Your task to perform on an android device: uninstall "Mercado Libre" Image 0: 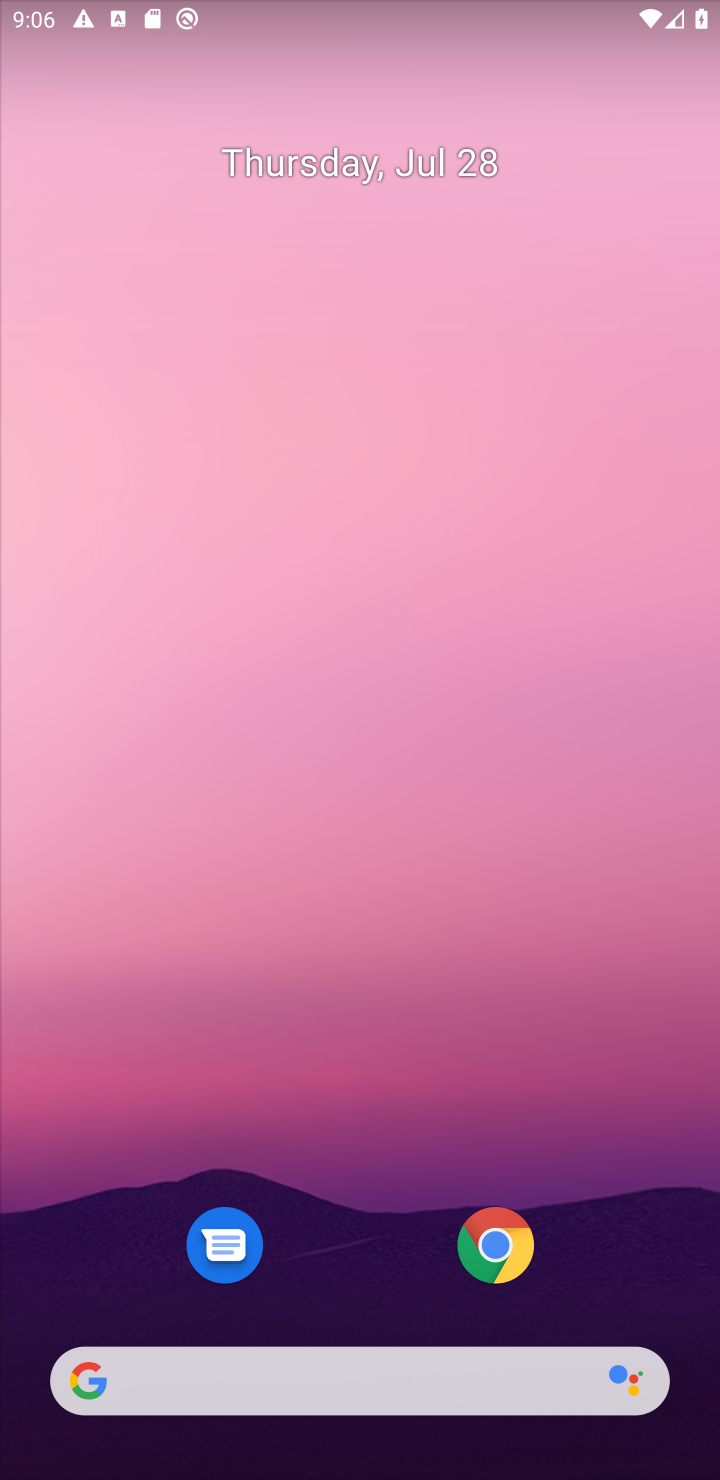
Step 0: drag from (330, 1291) to (339, 278)
Your task to perform on an android device: uninstall "Mercado Libre" Image 1: 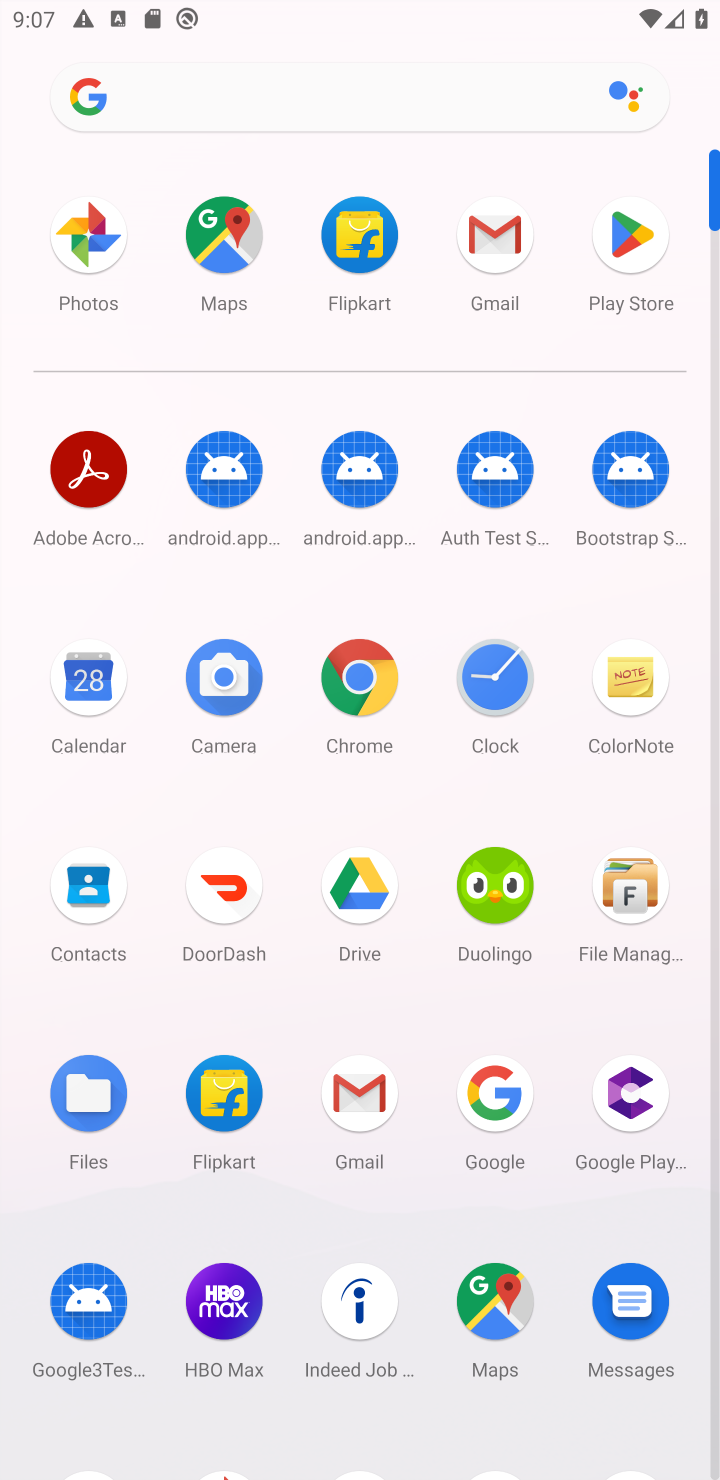
Step 1: click (641, 245)
Your task to perform on an android device: uninstall "Mercado Libre" Image 2: 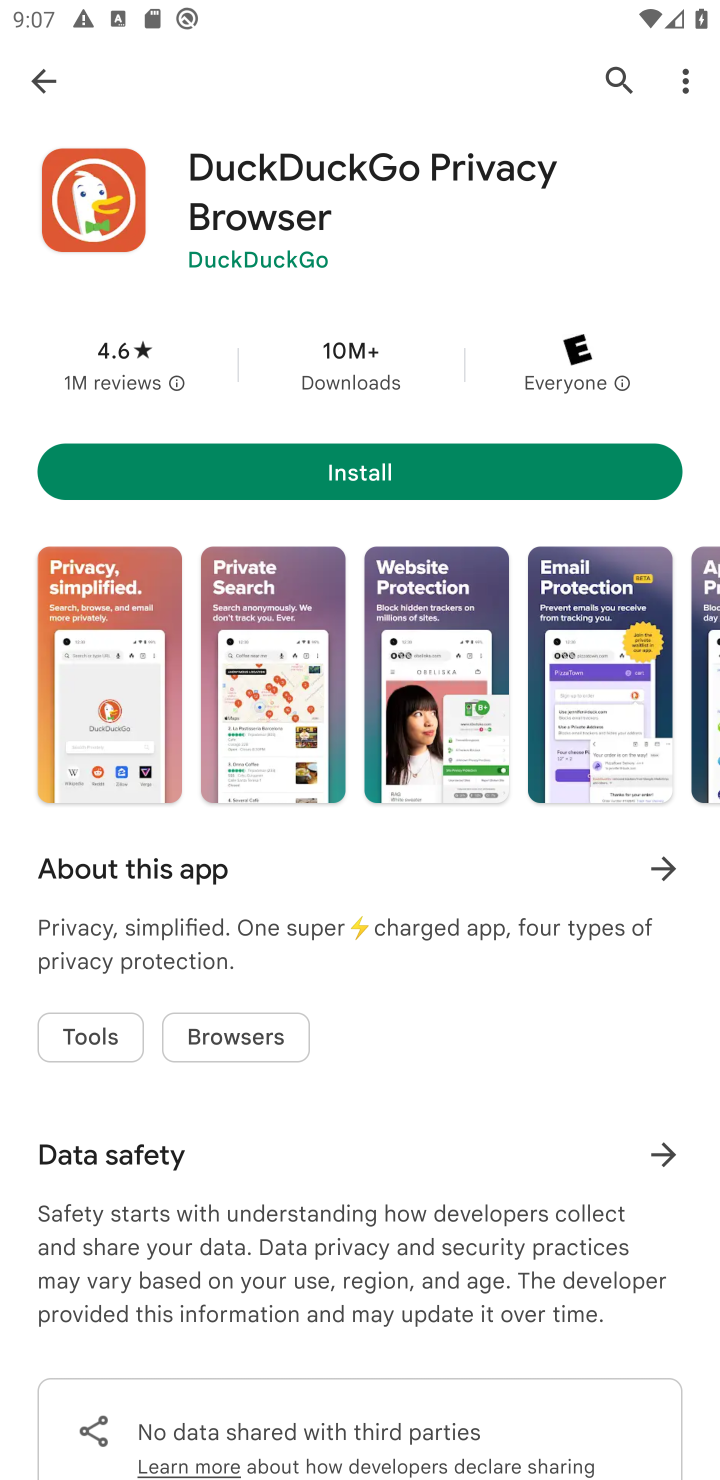
Step 2: click (617, 88)
Your task to perform on an android device: uninstall "Mercado Libre" Image 3: 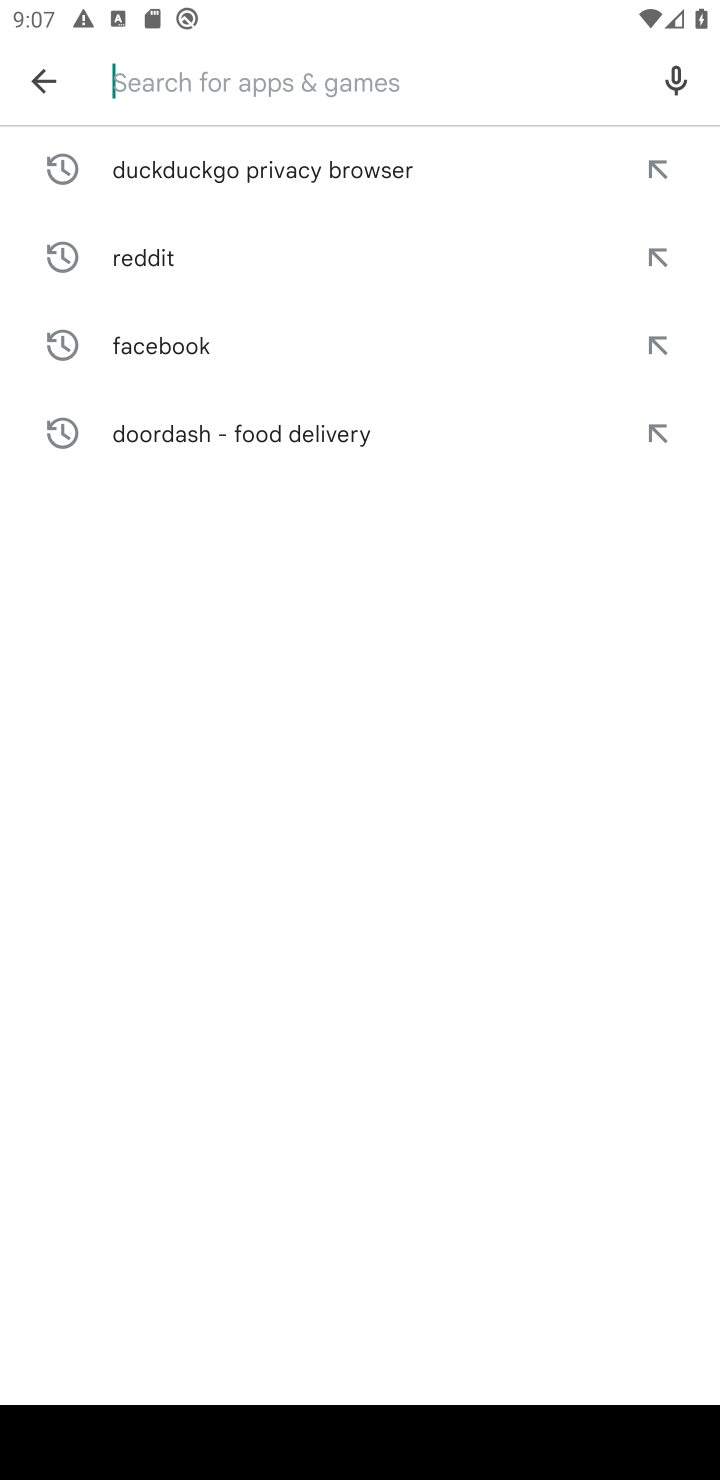
Step 3: type "mercado libre"
Your task to perform on an android device: uninstall "Mercado Libre" Image 4: 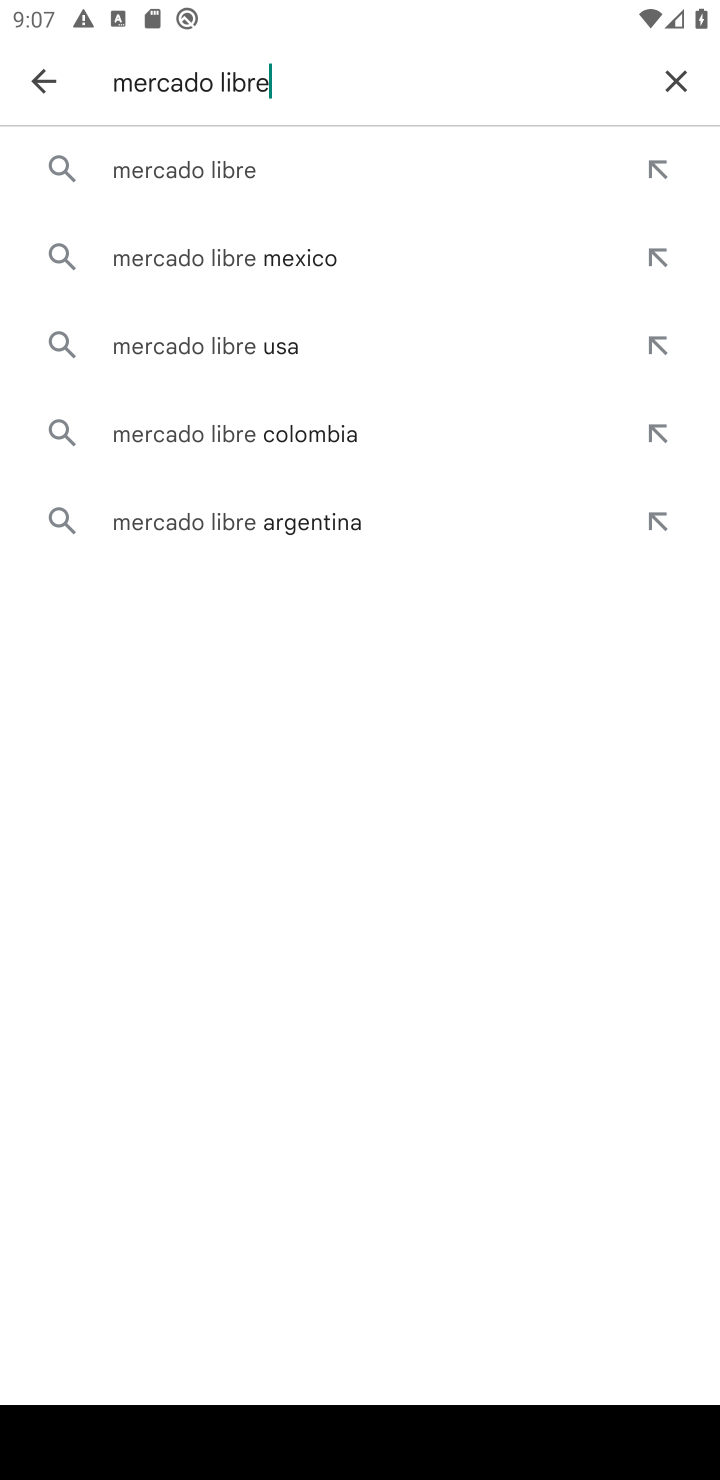
Step 4: click (345, 130)
Your task to perform on an android device: uninstall "Mercado Libre" Image 5: 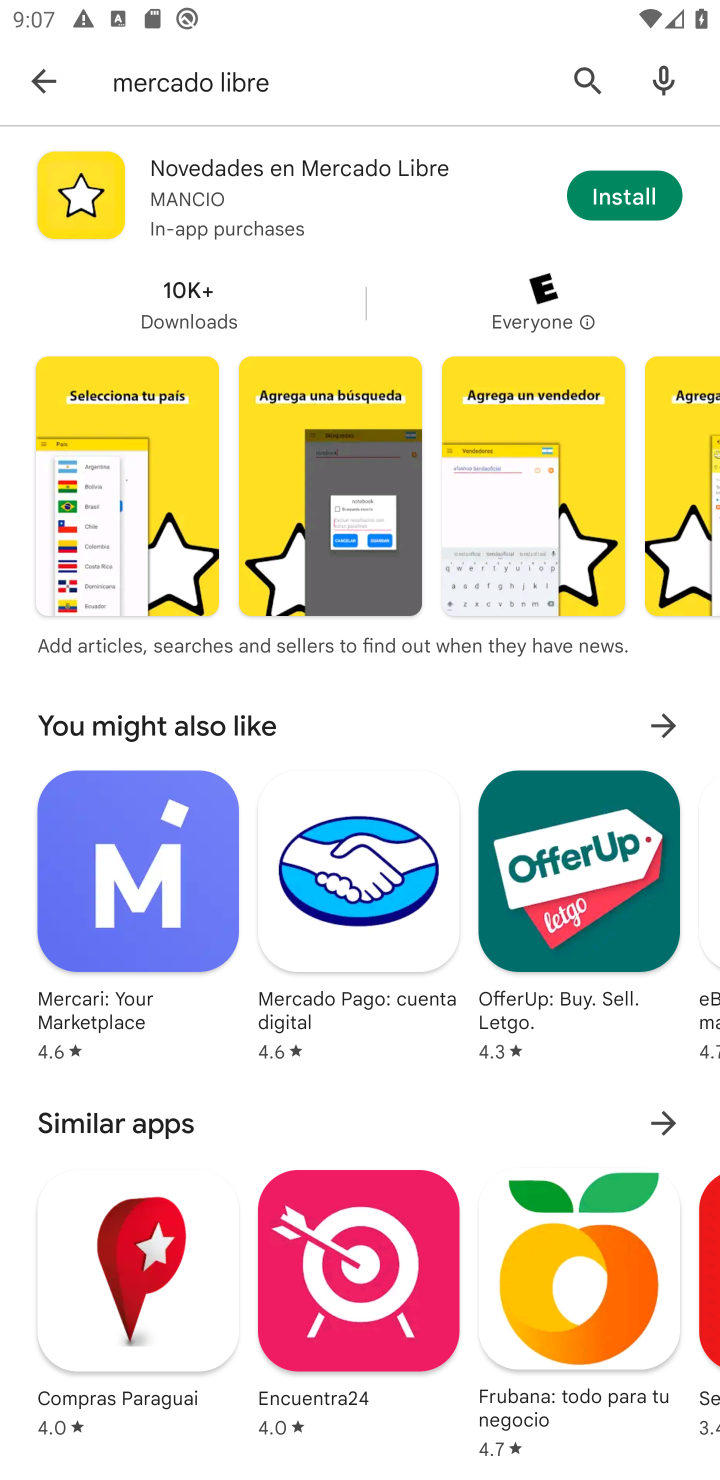
Step 5: task complete